Your task to perform on an android device: turn off wifi Image 0: 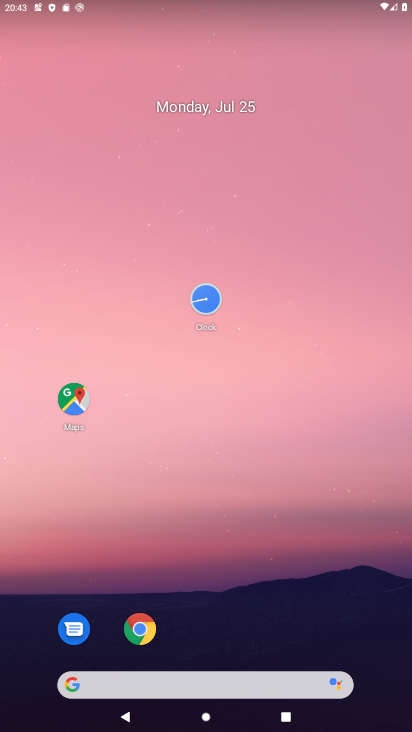
Step 0: drag from (229, 637) to (328, 1)
Your task to perform on an android device: turn off wifi Image 1: 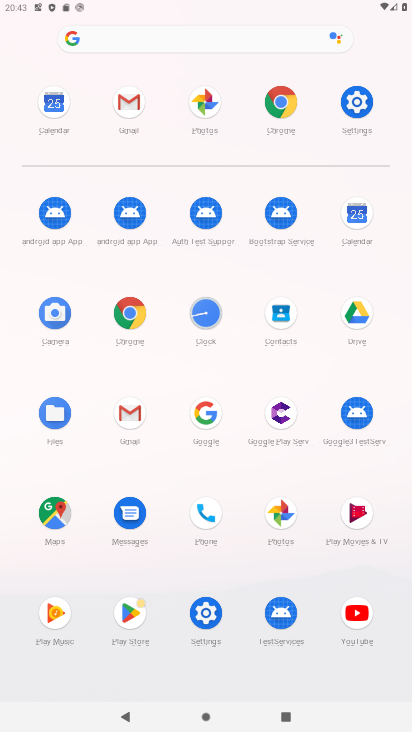
Step 1: click (366, 112)
Your task to perform on an android device: turn off wifi Image 2: 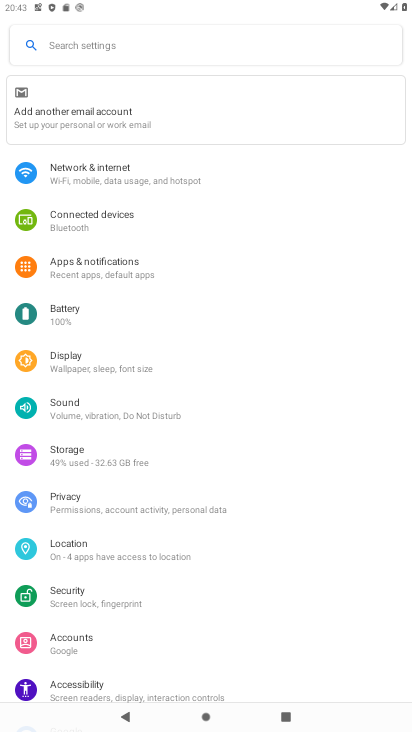
Step 2: click (104, 177)
Your task to perform on an android device: turn off wifi Image 3: 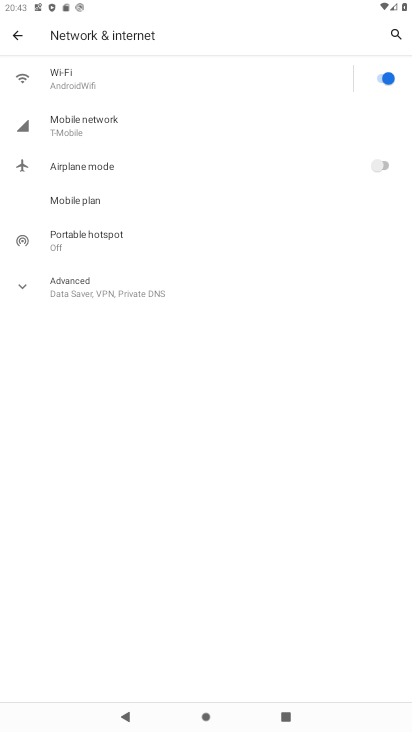
Step 3: click (372, 78)
Your task to perform on an android device: turn off wifi Image 4: 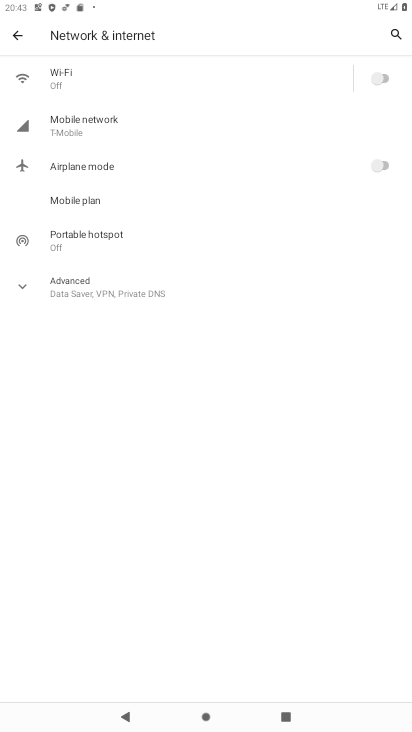
Step 4: task complete